Your task to perform on an android device: What's the news in theFalkland Islands? Image 0: 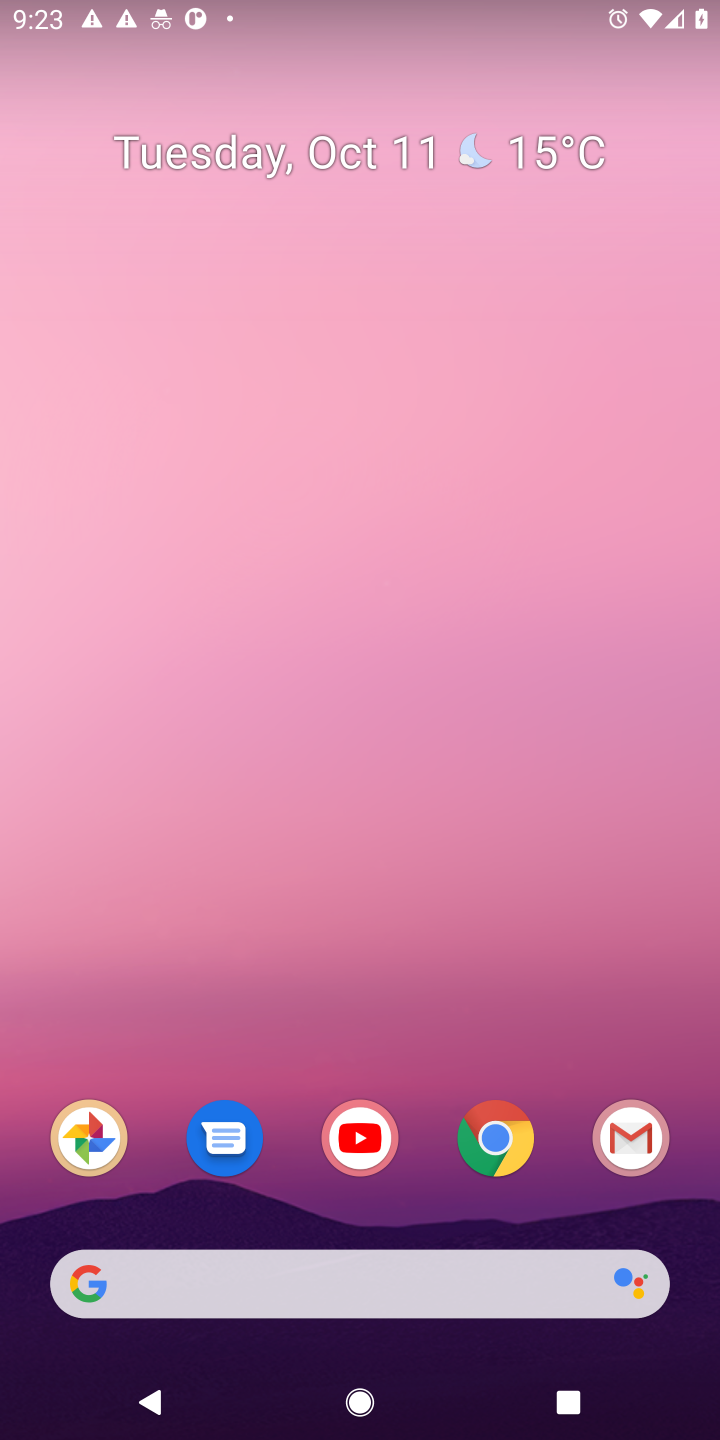
Step 0: press home button
Your task to perform on an android device: What's the news in theFalkland Islands? Image 1: 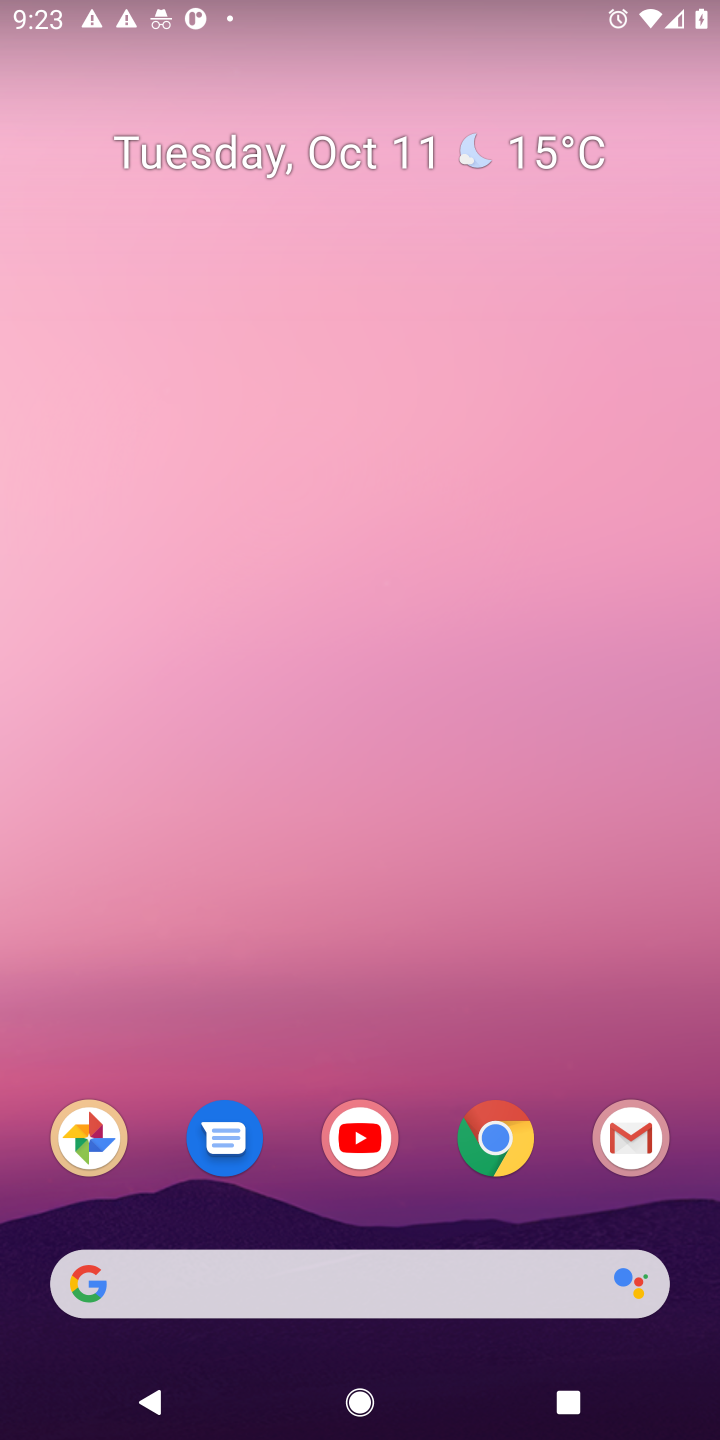
Step 1: click (353, 1285)
Your task to perform on an android device: What's the news in theFalkland Islands? Image 2: 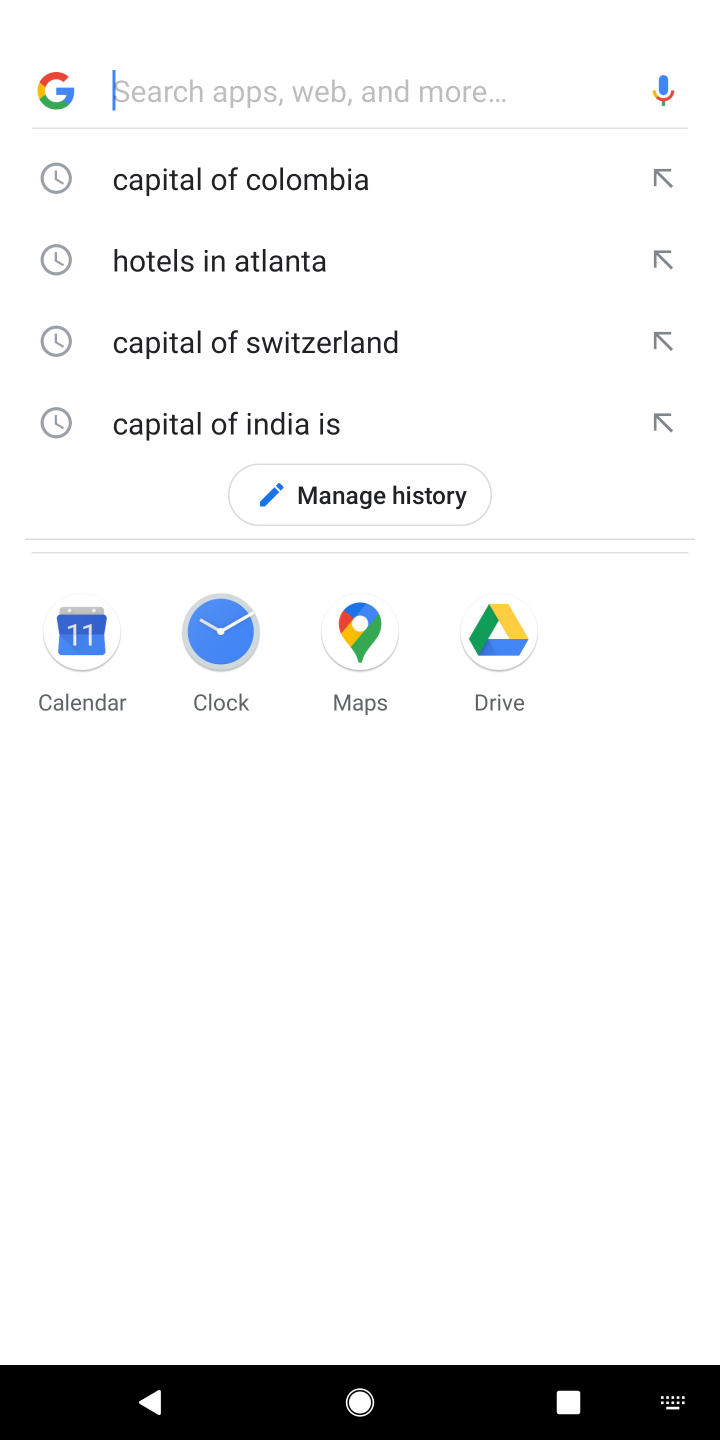
Step 2: type "What's the news in theFalkland Islands?"
Your task to perform on an android device: What's the news in theFalkland Islands? Image 3: 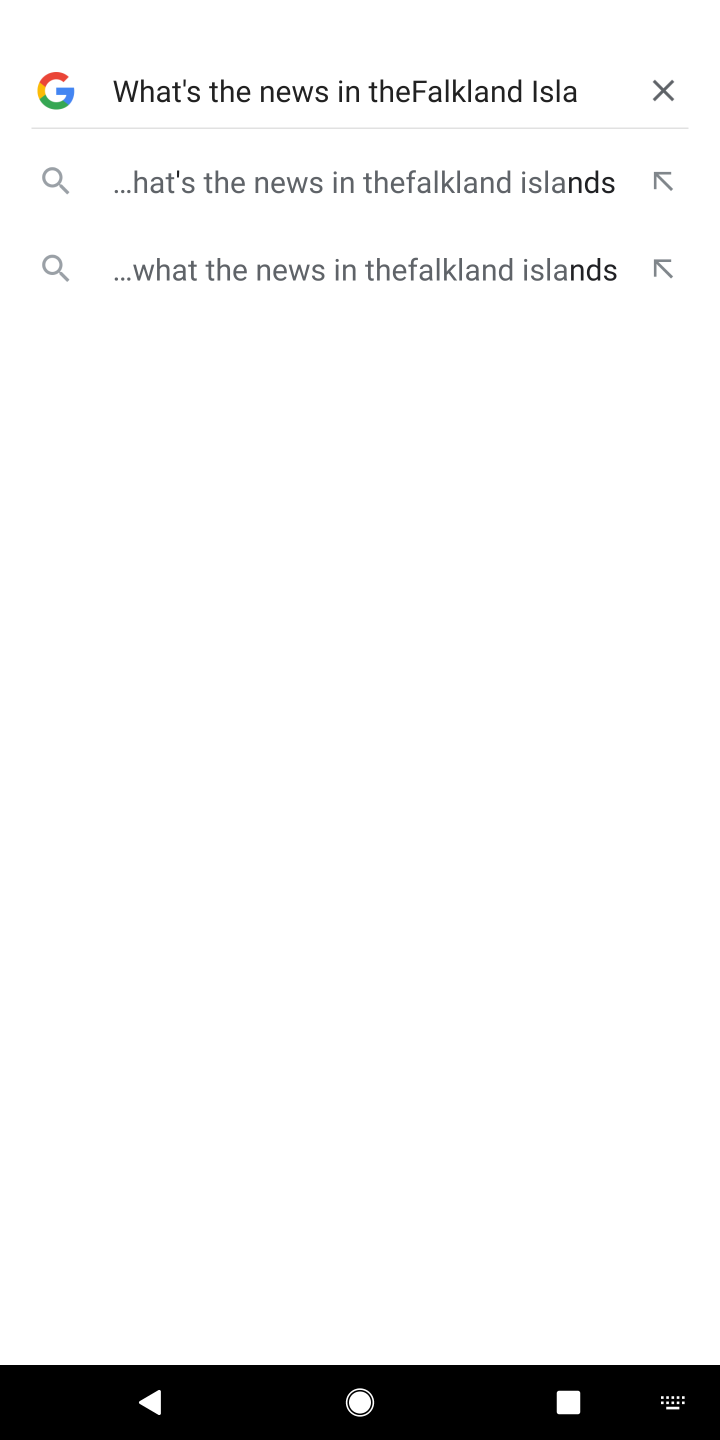
Step 3: click (419, 169)
Your task to perform on an android device: What's the news in theFalkland Islands? Image 4: 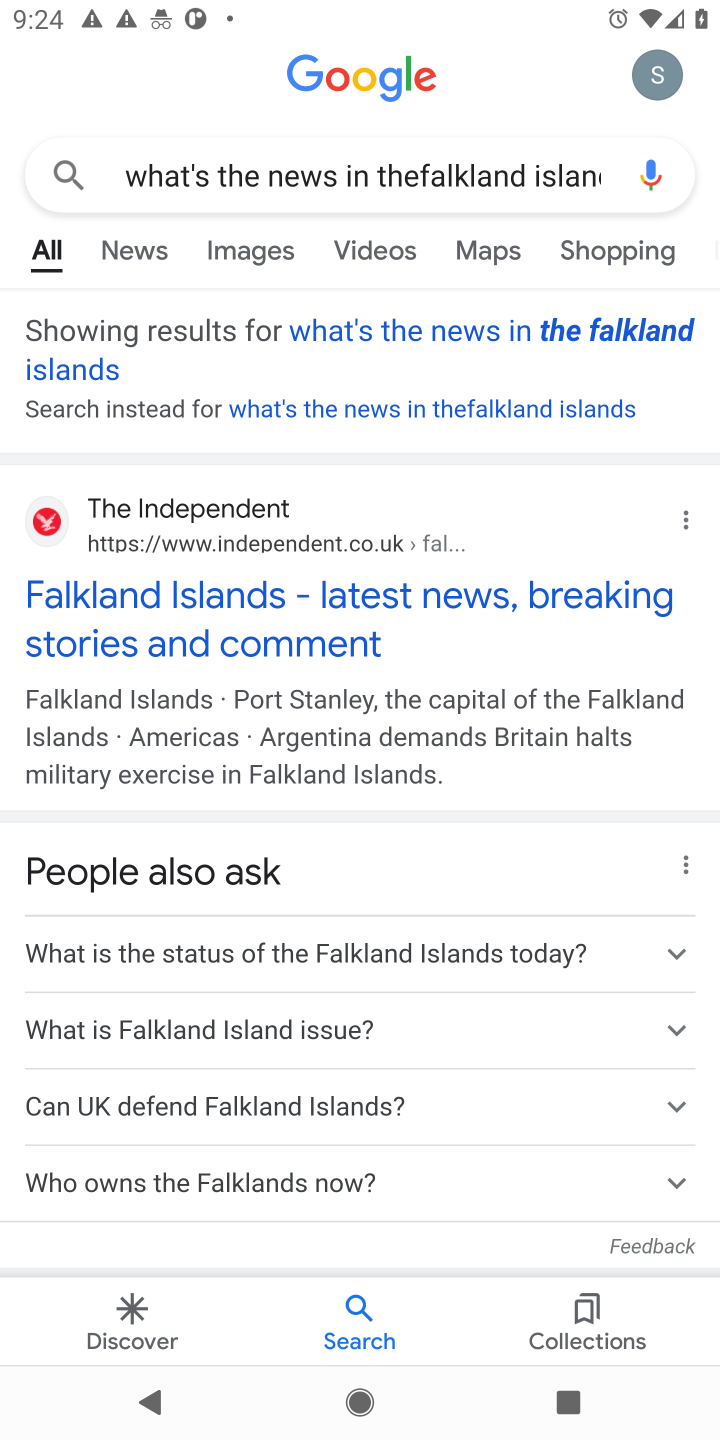
Step 4: click (269, 611)
Your task to perform on an android device: What's the news in theFalkland Islands? Image 5: 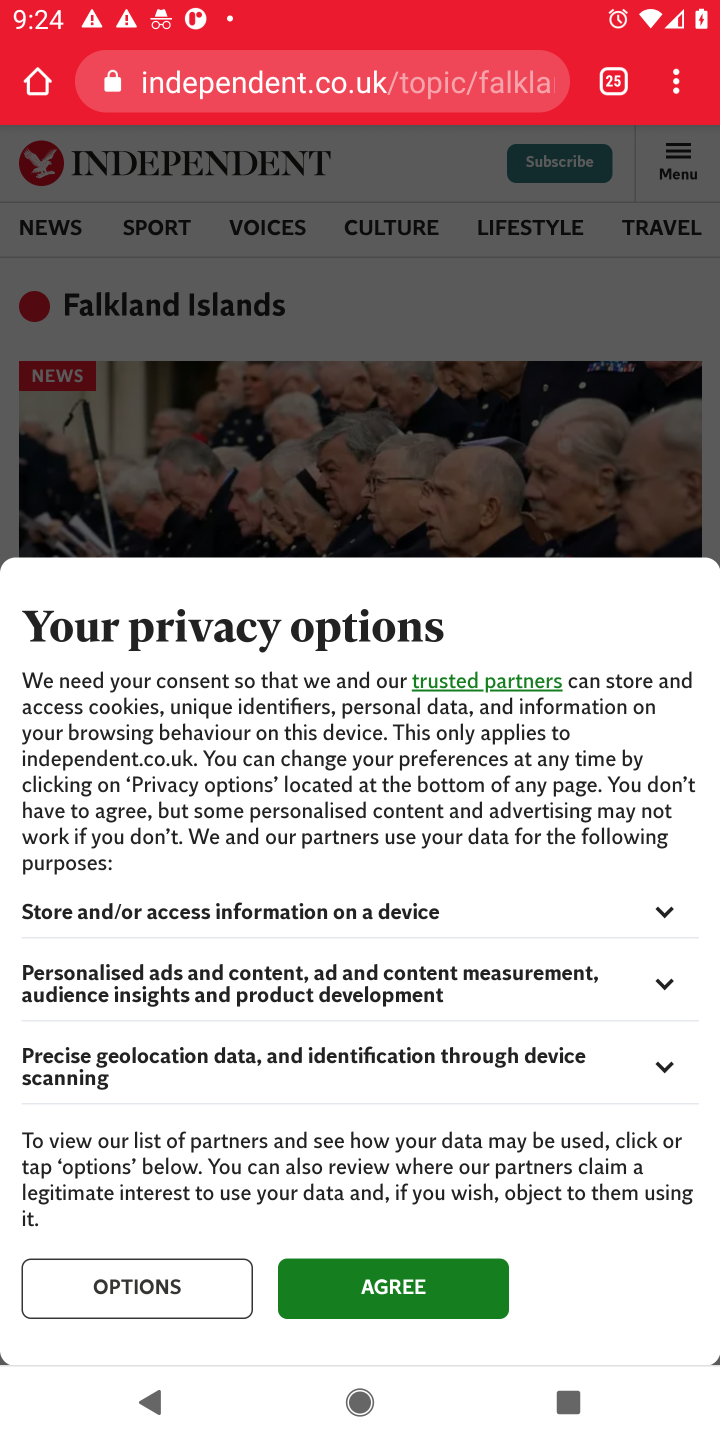
Step 5: click (397, 1276)
Your task to perform on an android device: What's the news in theFalkland Islands? Image 6: 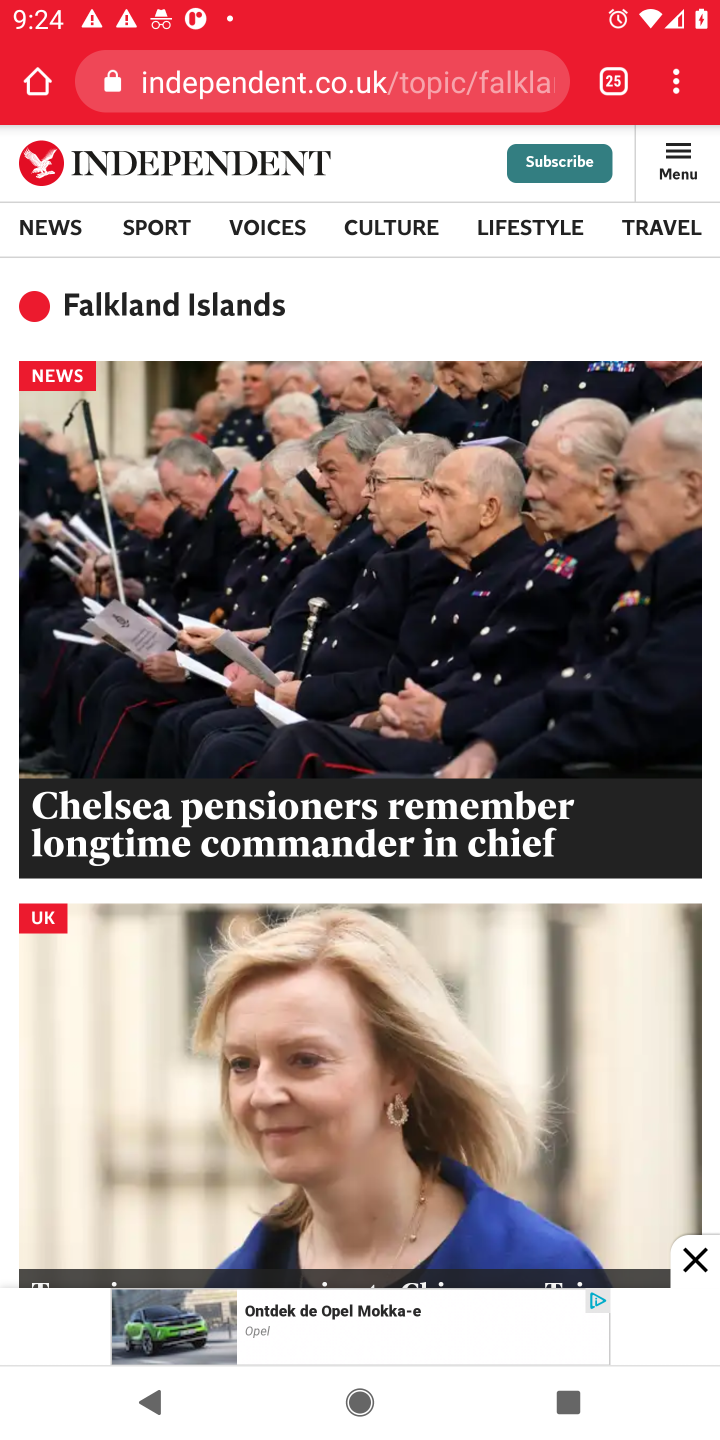
Step 6: drag from (574, 895) to (513, 541)
Your task to perform on an android device: What's the news in theFalkland Islands? Image 7: 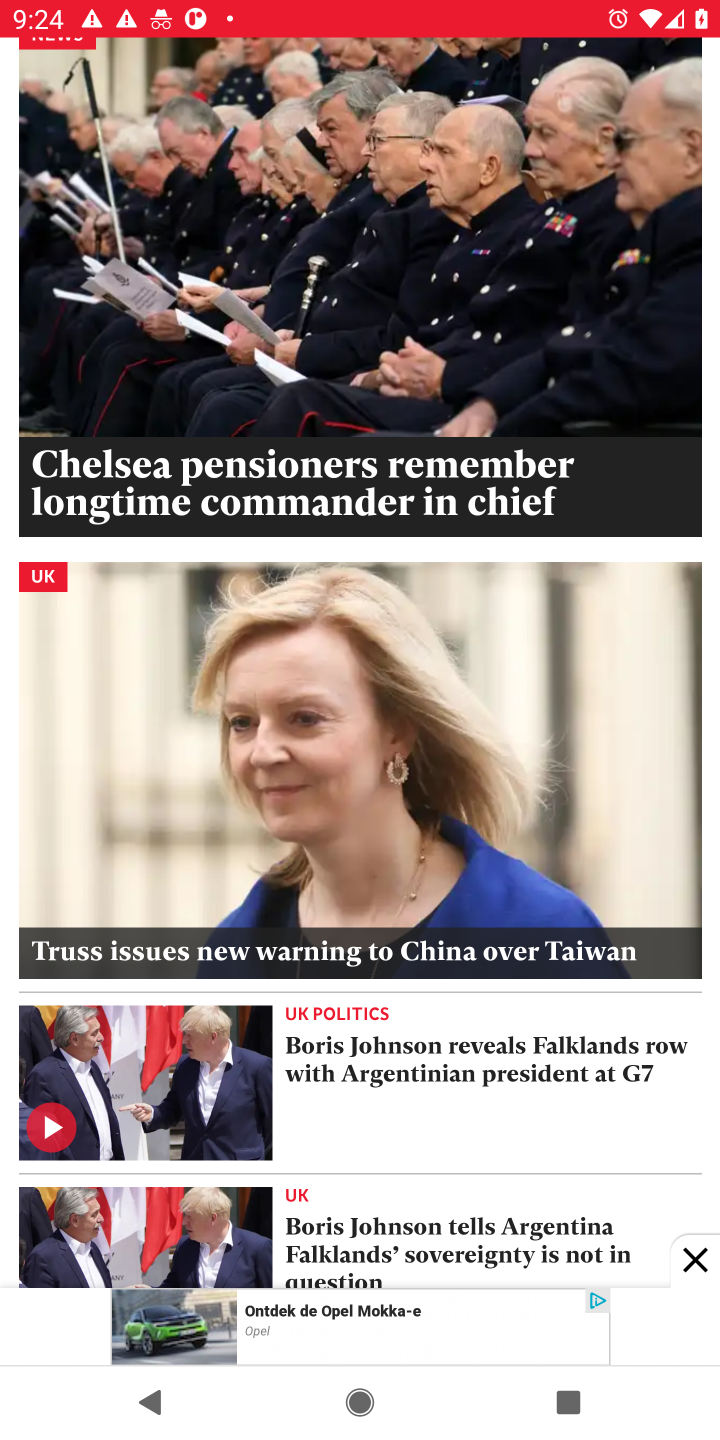
Step 7: drag from (372, 710) to (349, 566)
Your task to perform on an android device: What's the news in theFalkland Islands? Image 8: 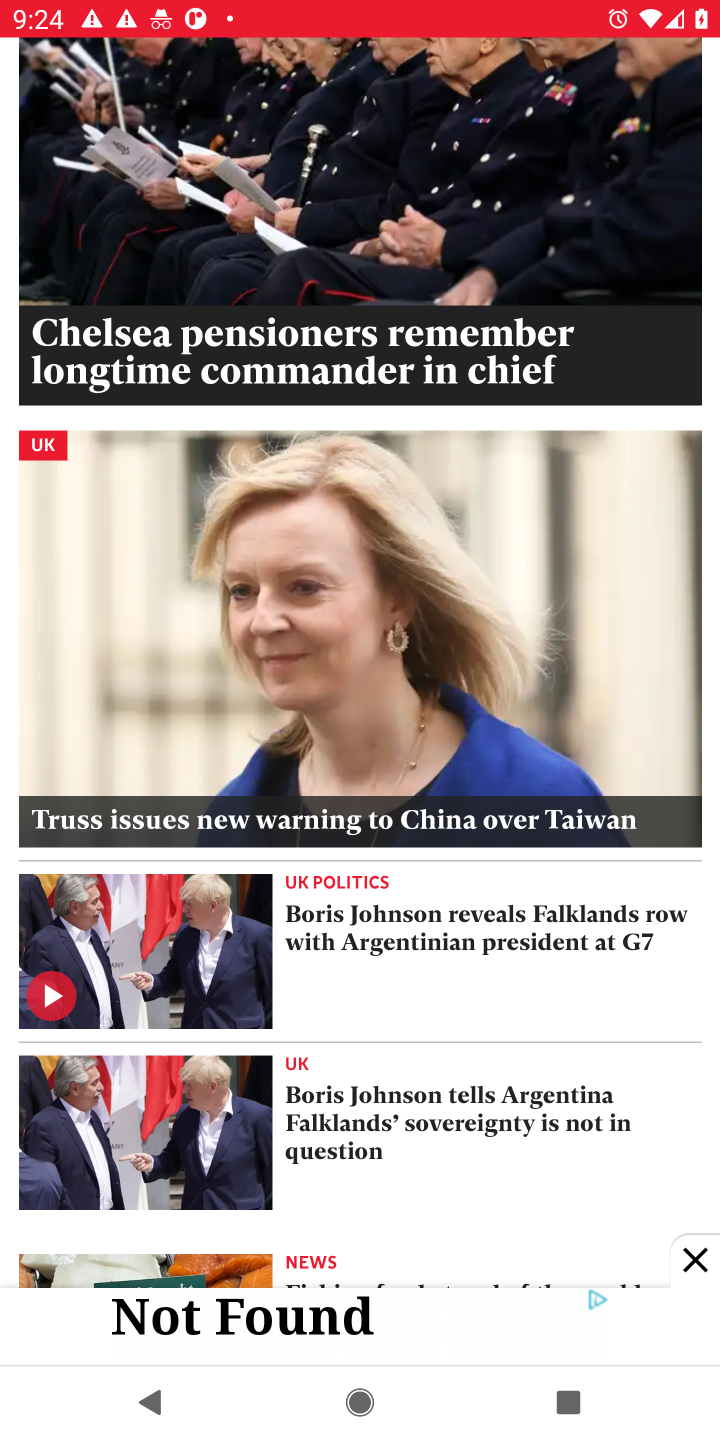
Step 8: drag from (437, 1018) to (407, 638)
Your task to perform on an android device: What's the news in theFalkland Islands? Image 9: 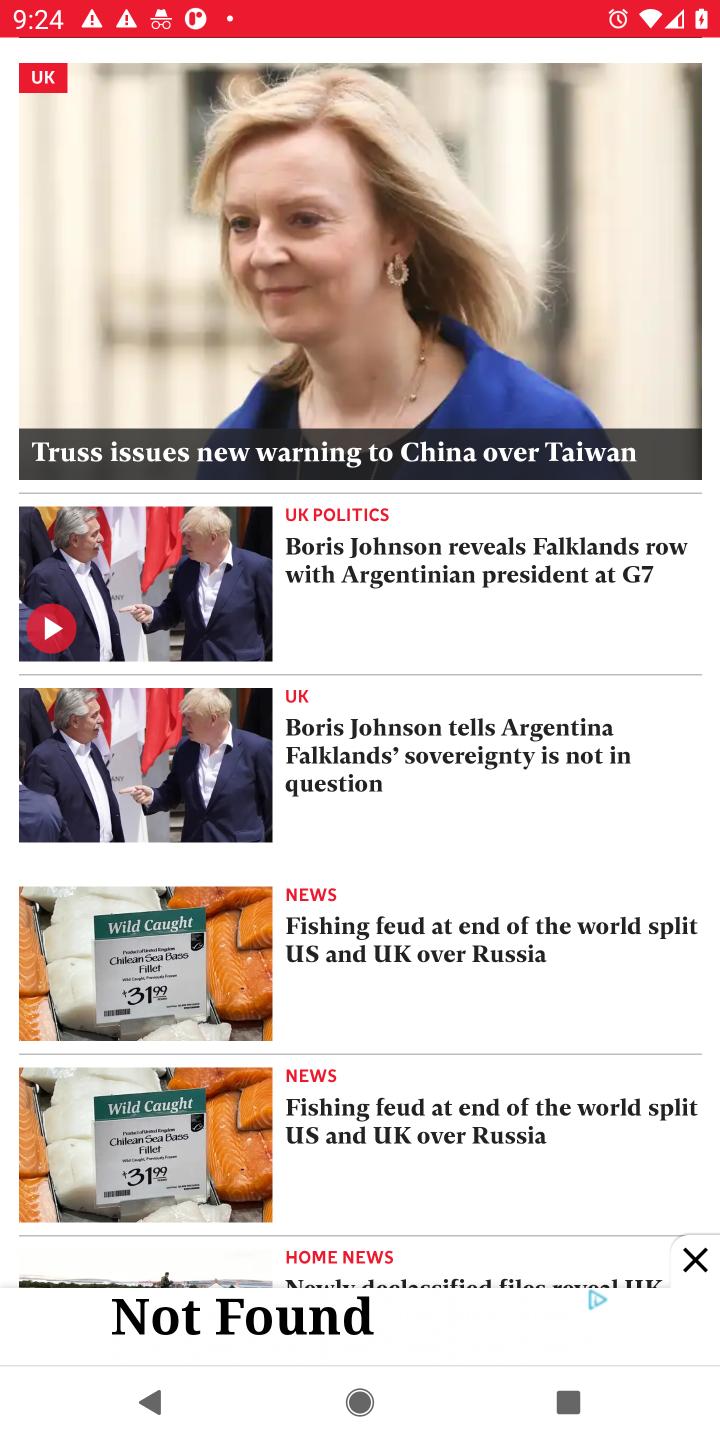
Step 9: drag from (439, 1011) to (439, 469)
Your task to perform on an android device: What's the news in theFalkland Islands? Image 10: 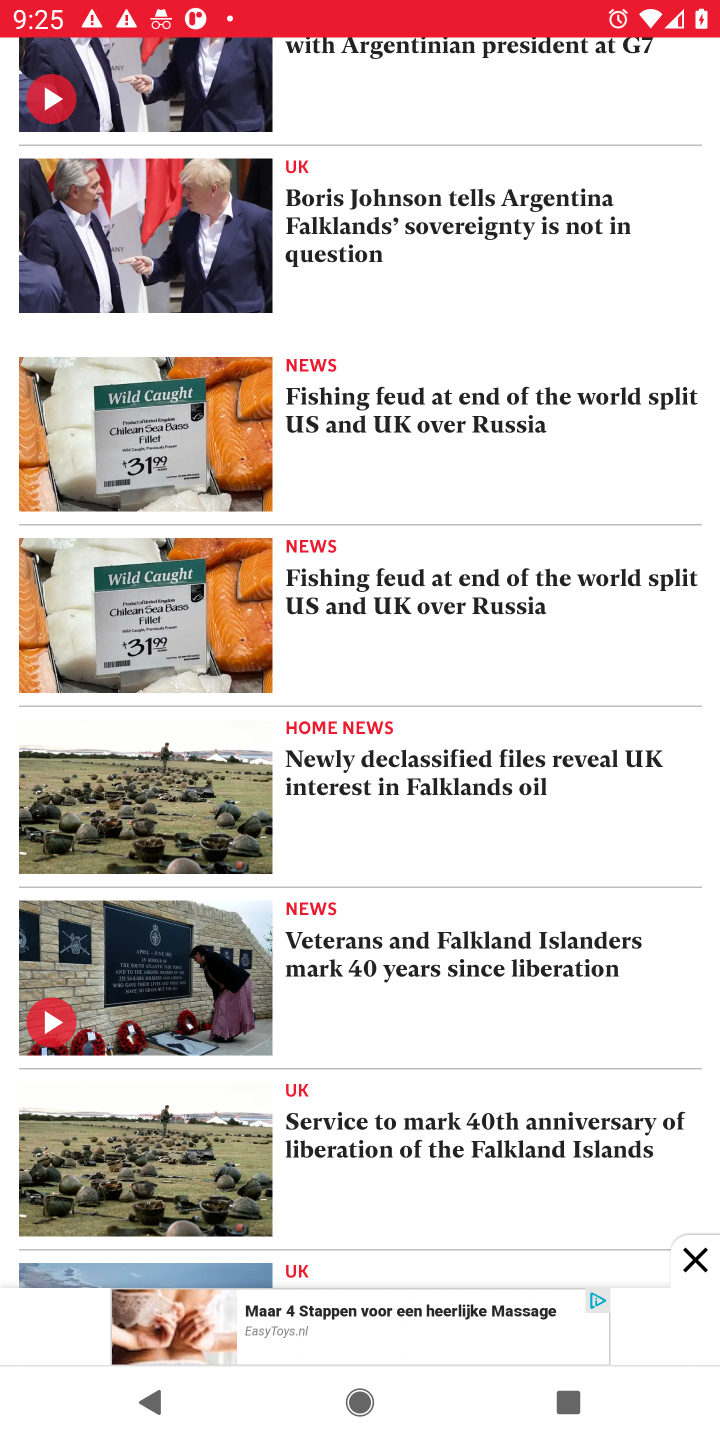
Step 10: drag from (522, 1013) to (522, 646)
Your task to perform on an android device: What's the news in theFalkland Islands? Image 11: 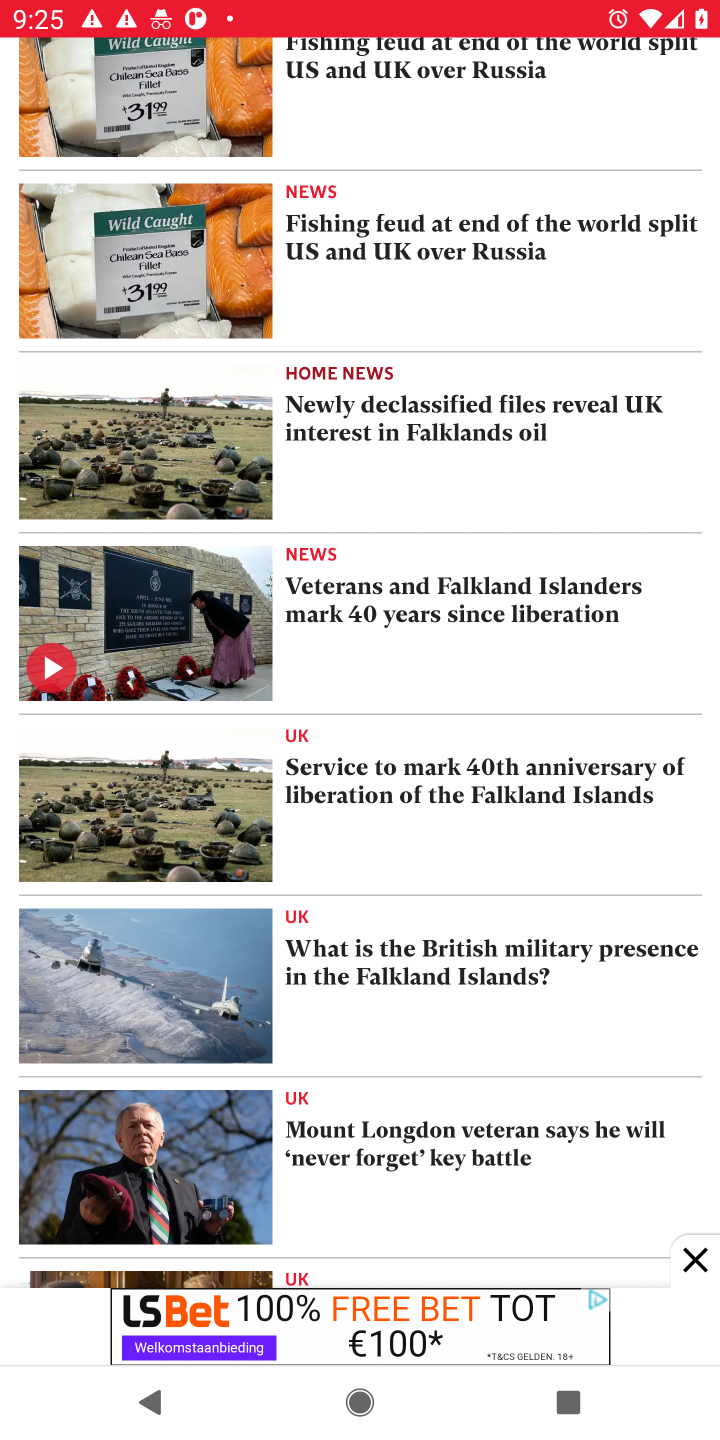
Step 11: click (359, 513)
Your task to perform on an android device: What's the news in theFalkland Islands? Image 12: 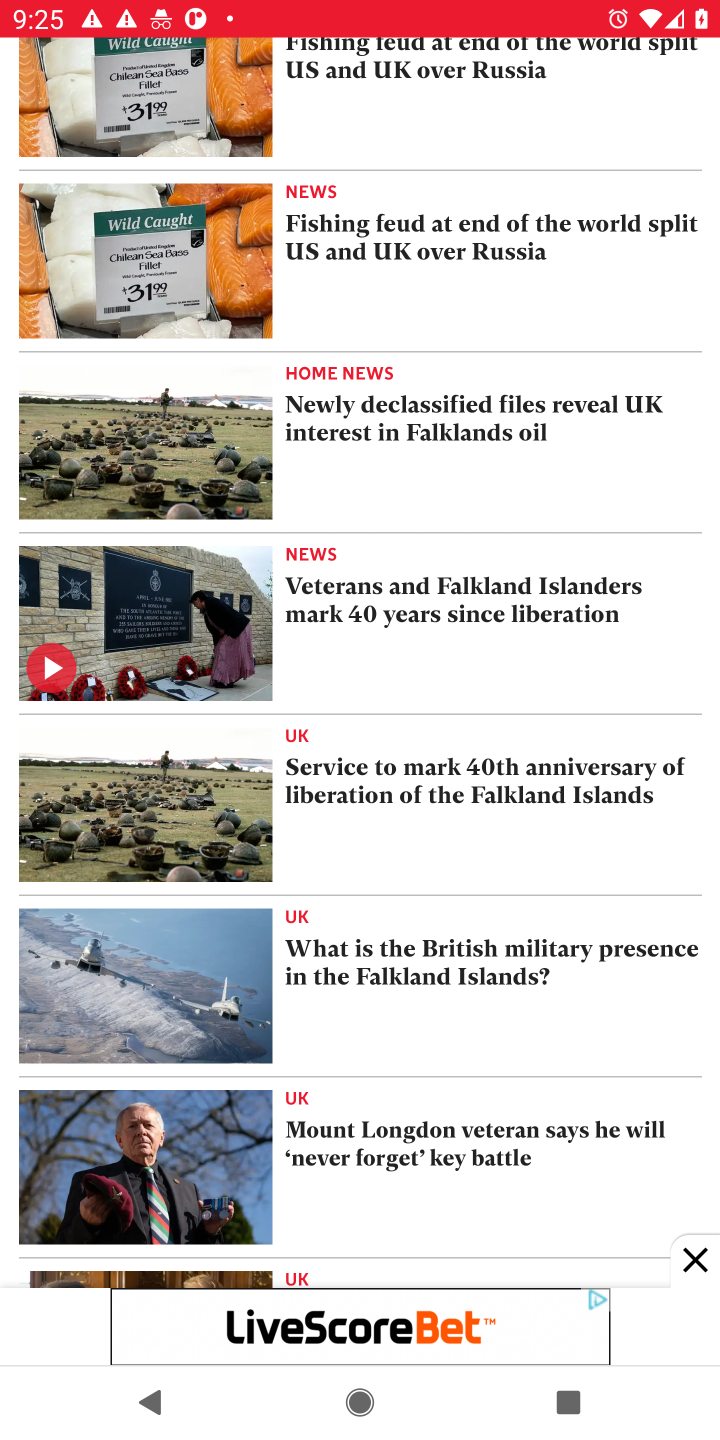
Step 12: task complete